Your task to perform on an android device: toggle notification dots Image 0: 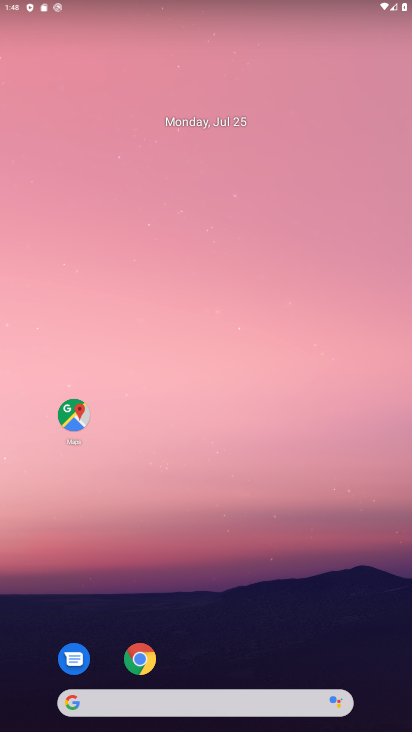
Step 0: drag from (250, 644) to (316, 22)
Your task to perform on an android device: toggle notification dots Image 1: 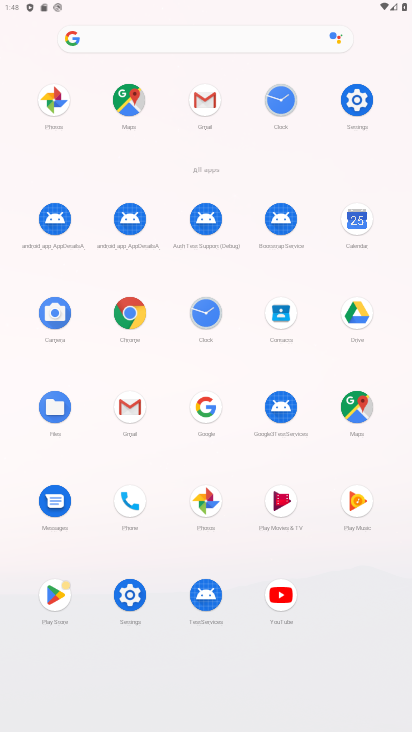
Step 1: click (130, 600)
Your task to perform on an android device: toggle notification dots Image 2: 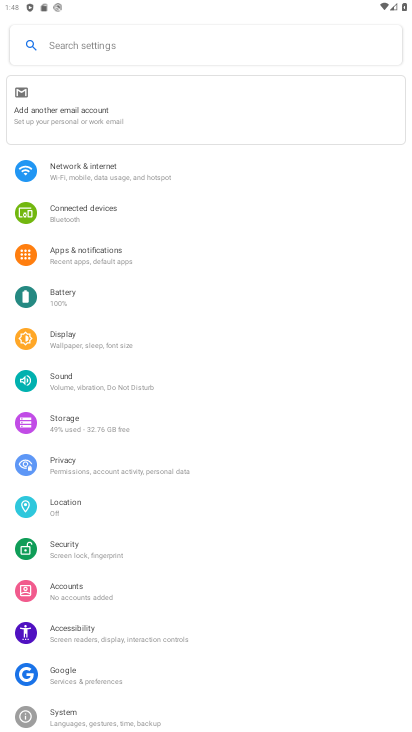
Step 2: click (122, 255)
Your task to perform on an android device: toggle notification dots Image 3: 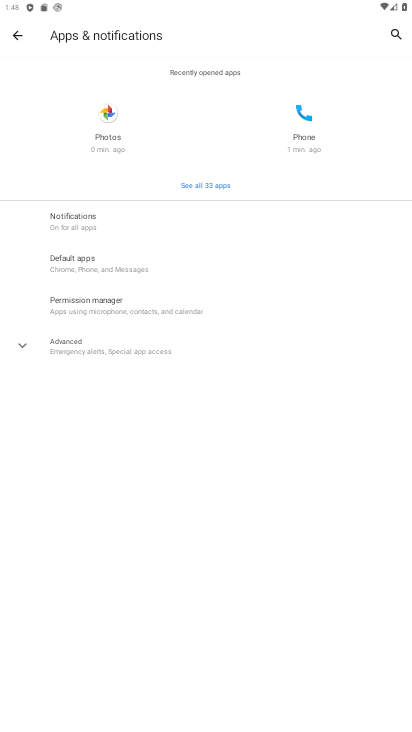
Step 3: click (108, 217)
Your task to perform on an android device: toggle notification dots Image 4: 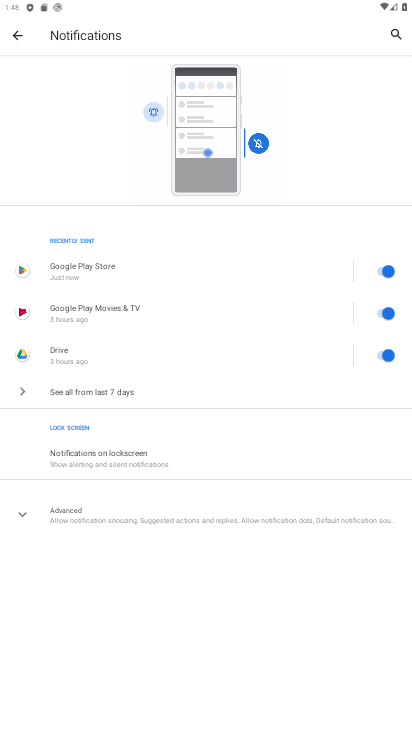
Step 4: click (105, 233)
Your task to perform on an android device: toggle notification dots Image 5: 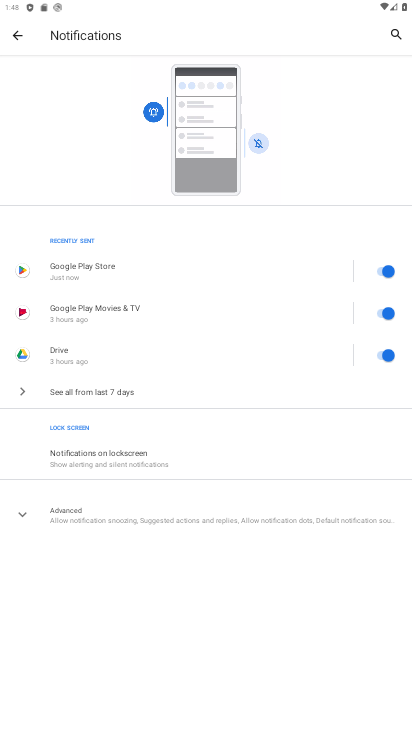
Step 5: click (106, 514)
Your task to perform on an android device: toggle notification dots Image 6: 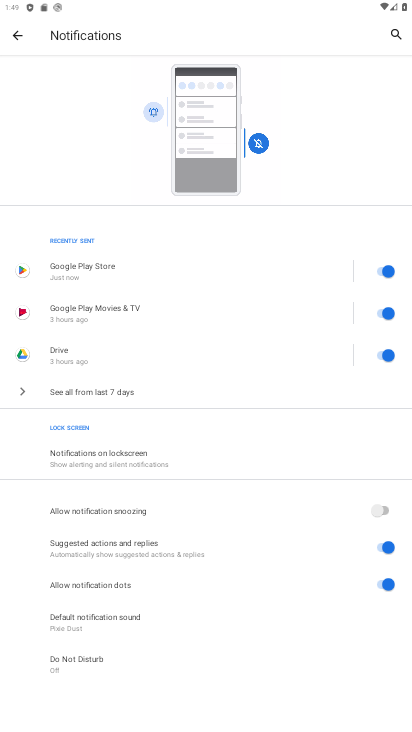
Step 6: click (371, 587)
Your task to perform on an android device: toggle notification dots Image 7: 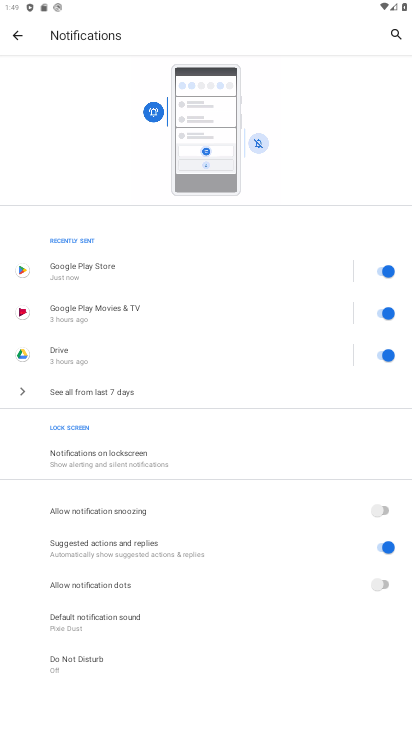
Step 7: task complete